Your task to perform on an android device: What's the weather? Image 0: 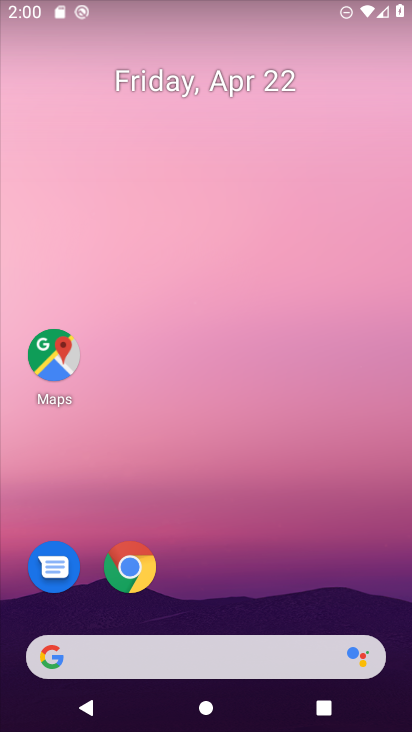
Step 0: drag from (258, 610) to (269, 75)
Your task to perform on an android device: What's the weather? Image 1: 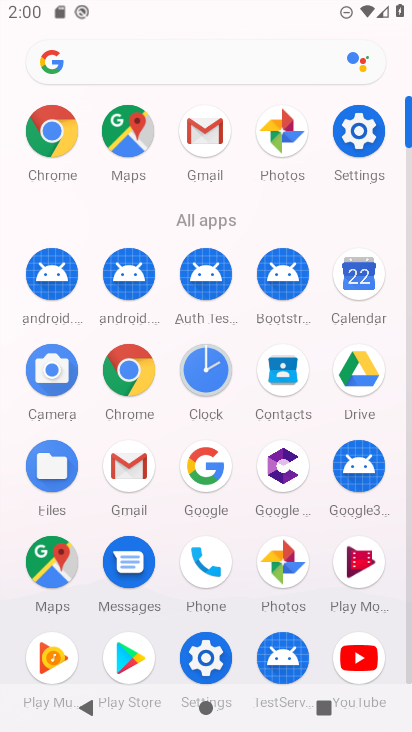
Step 1: click (209, 469)
Your task to perform on an android device: What's the weather? Image 2: 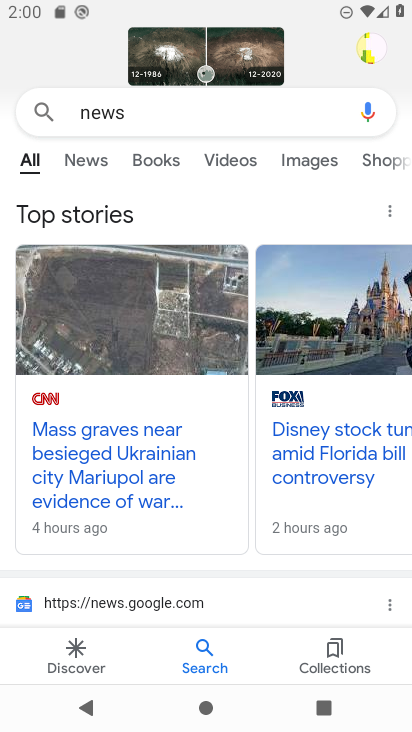
Step 2: click (159, 113)
Your task to perform on an android device: What's the weather? Image 3: 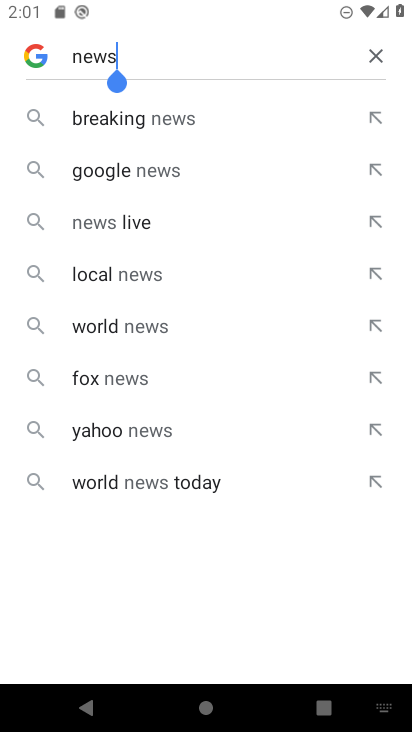
Step 3: click (373, 61)
Your task to perform on an android device: What's the weather? Image 4: 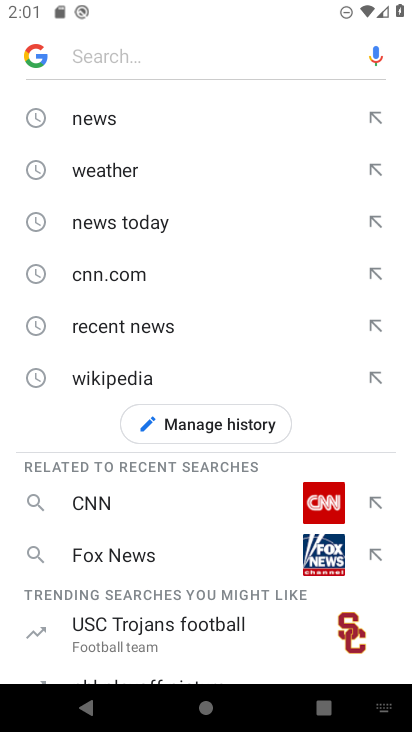
Step 4: click (139, 170)
Your task to perform on an android device: What's the weather? Image 5: 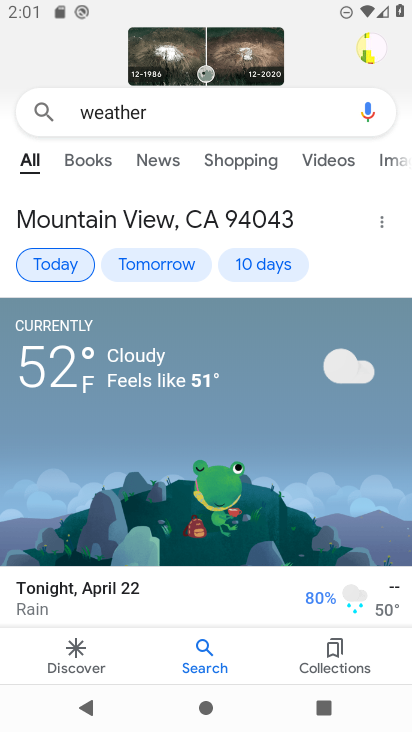
Step 5: task complete